Your task to perform on an android device: Open settings on Google Maps Image 0: 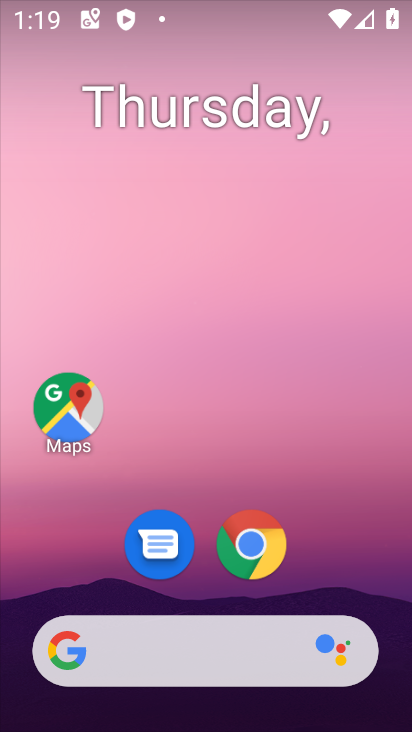
Step 0: drag from (209, 703) to (223, 137)
Your task to perform on an android device: Open settings on Google Maps Image 1: 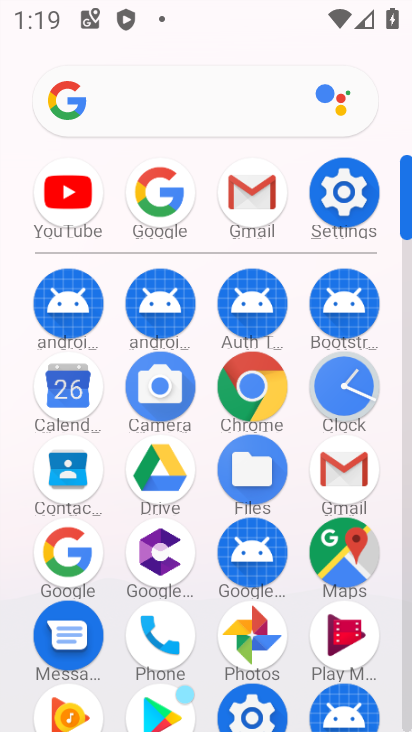
Step 1: click (334, 556)
Your task to perform on an android device: Open settings on Google Maps Image 2: 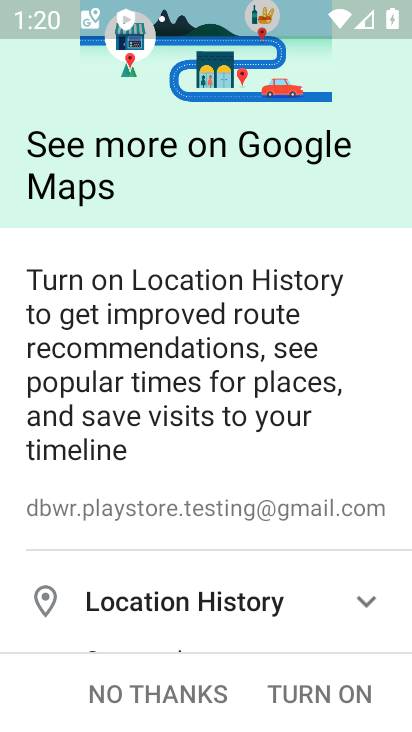
Step 2: click (160, 689)
Your task to perform on an android device: Open settings on Google Maps Image 3: 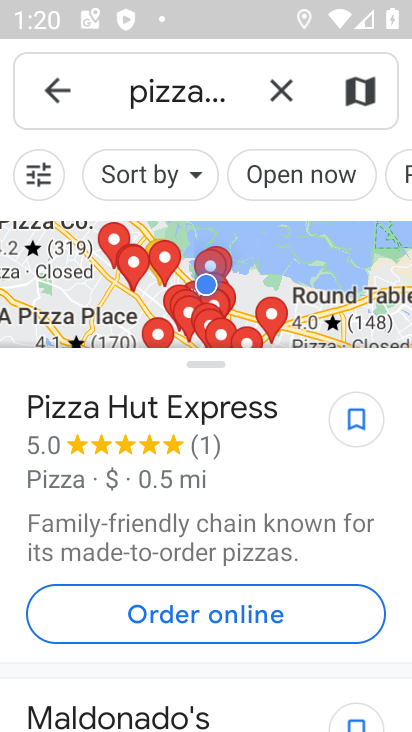
Step 3: task complete